Your task to perform on an android device: Go to CNN.com Image 0: 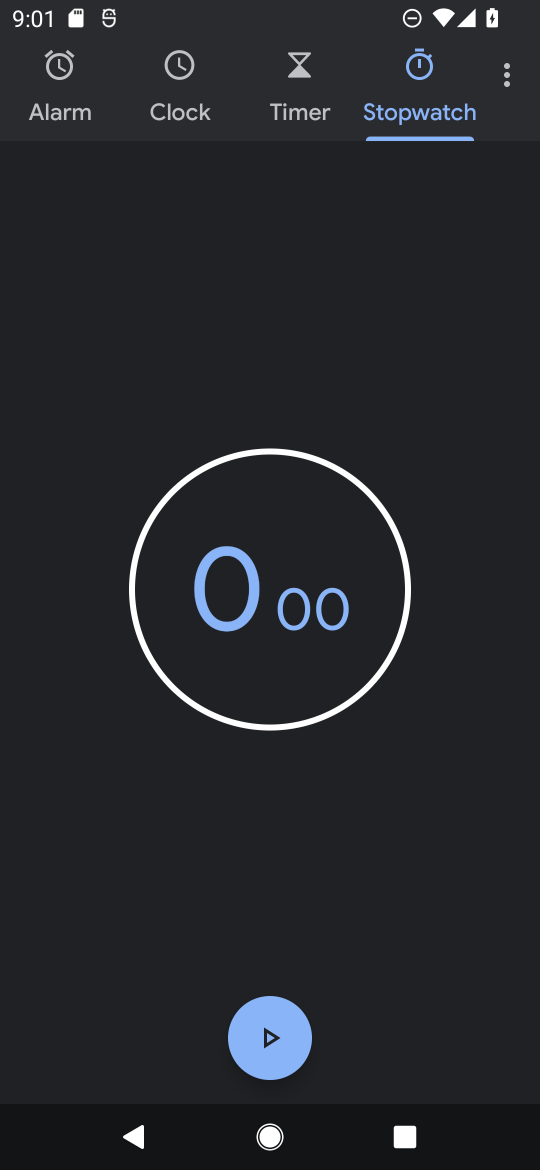
Step 0: press home button
Your task to perform on an android device: Go to CNN.com Image 1: 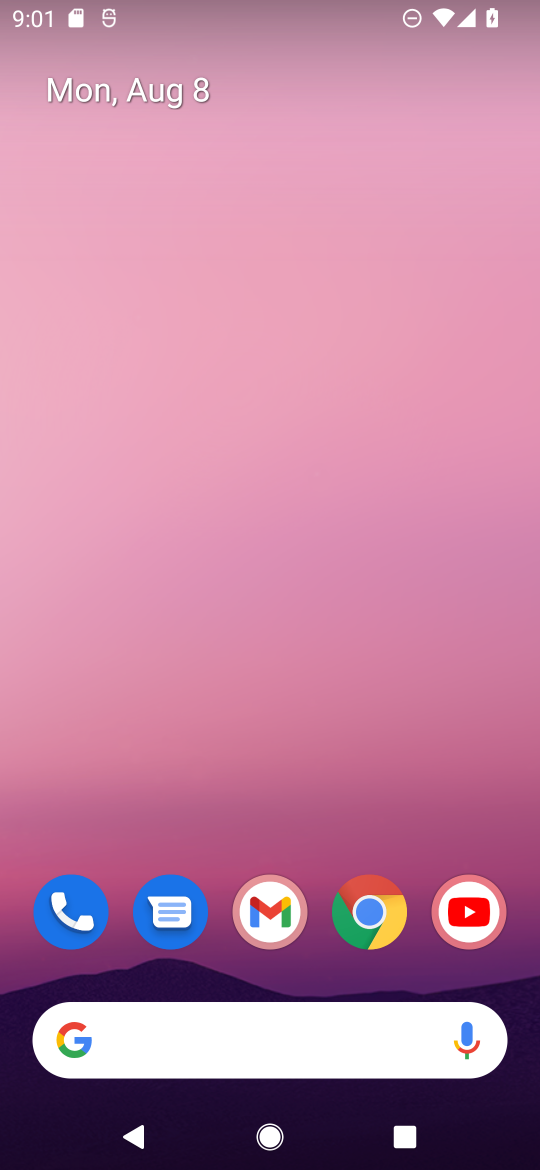
Step 1: drag from (491, 970) to (264, 2)
Your task to perform on an android device: Go to CNN.com Image 2: 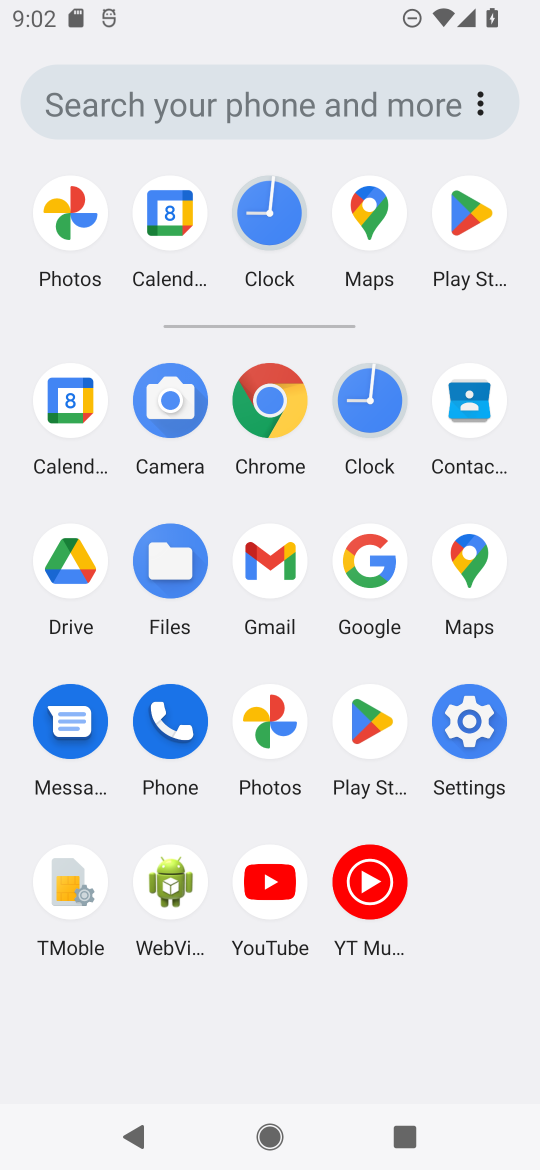
Step 2: click (373, 572)
Your task to perform on an android device: Go to CNN.com Image 3: 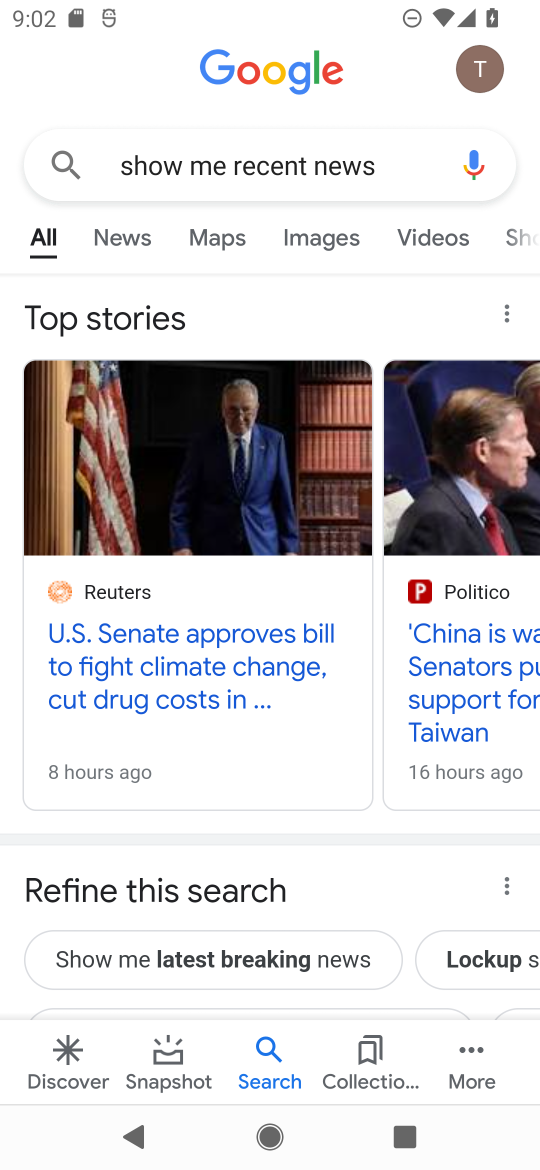
Step 3: press back button
Your task to perform on an android device: Go to CNN.com Image 4: 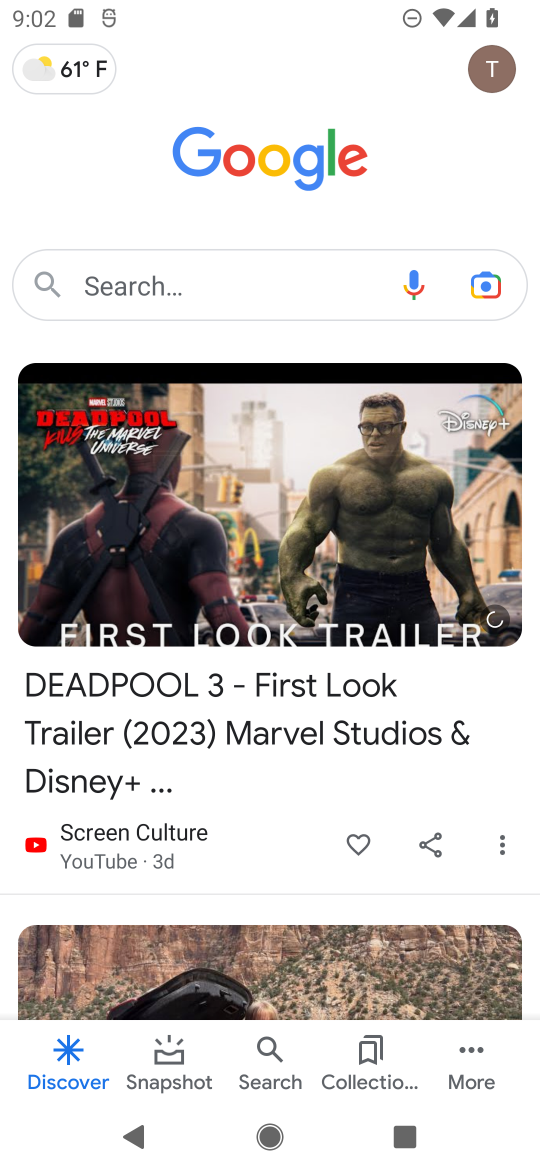
Step 4: click (153, 279)
Your task to perform on an android device: Go to CNN.com Image 5: 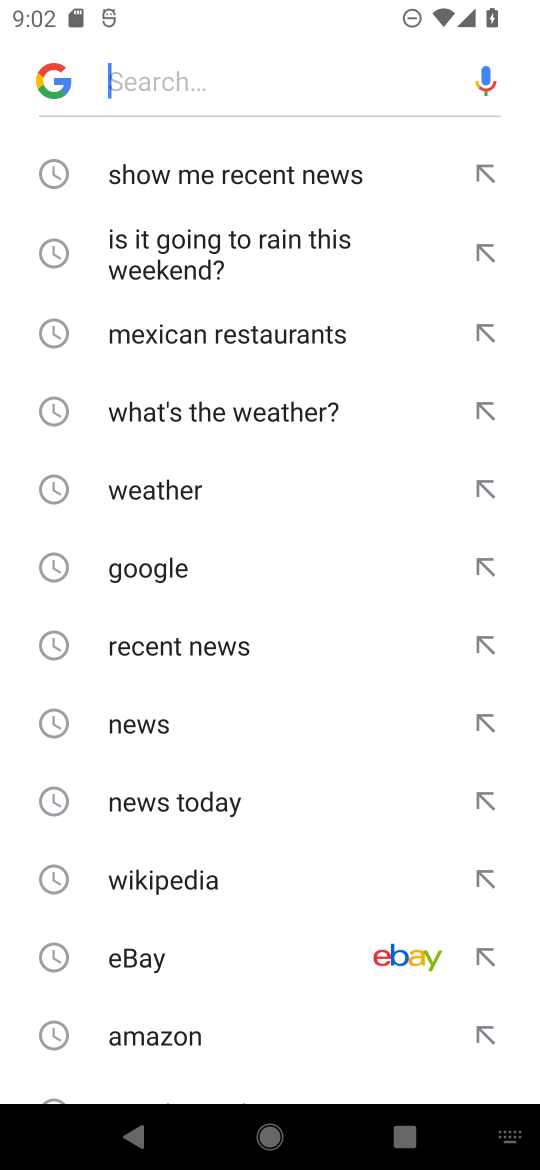
Step 5: type "CNN.com"
Your task to perform on an android device: Go to CNN.com Image 6: 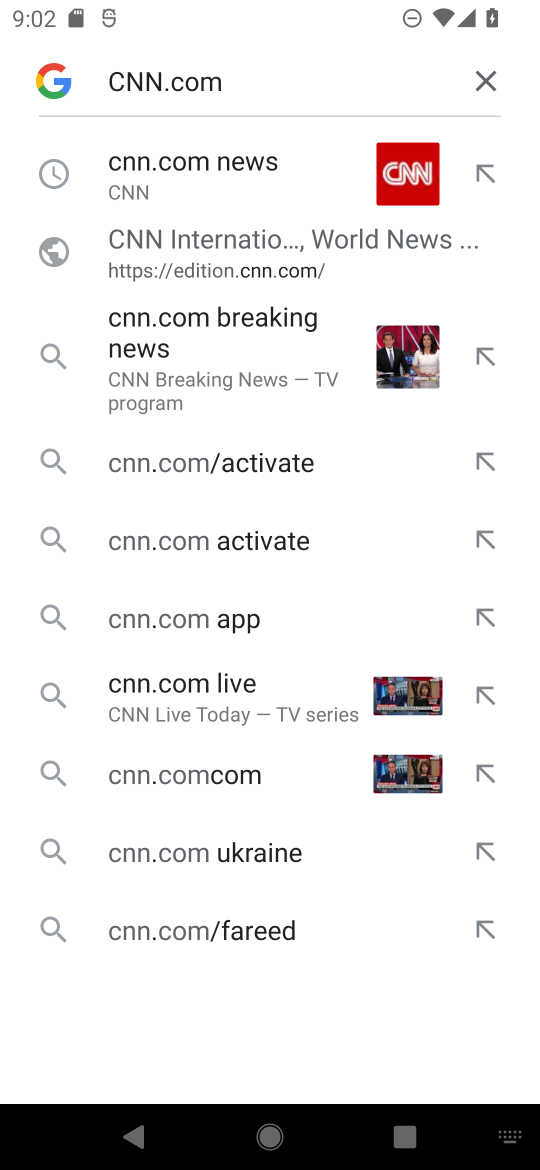
Step 6: click (170, 192)
Your task to perform on an android device: Go to CNN.com Image 7: 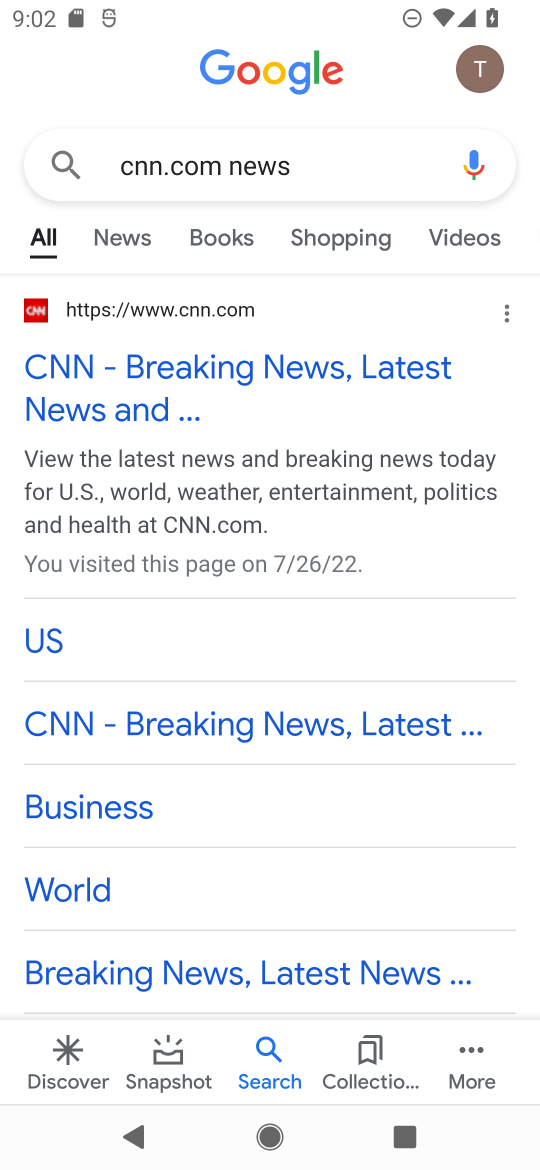
Step 7: task complete